Your task to perform on an android device: turn on wifi Image 0: 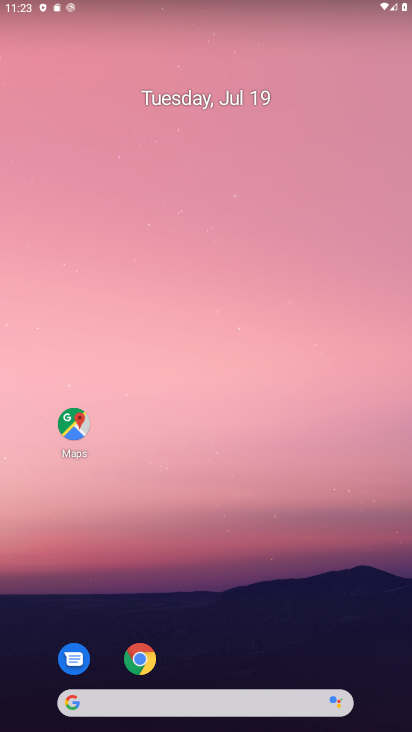
Step 0: press home button
Your task to perform on an android device: turn on wifi Image 1: 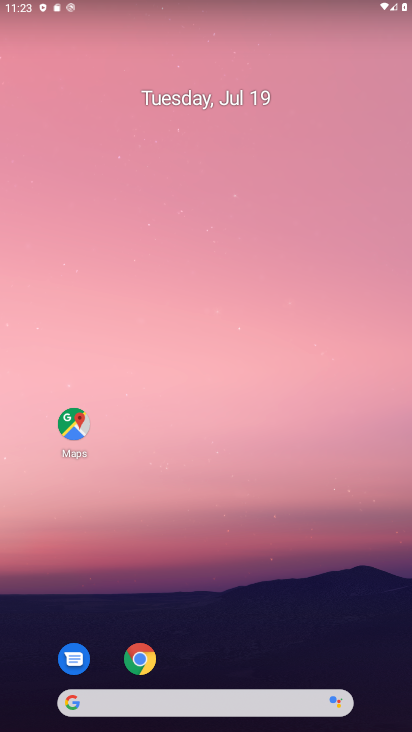
Step 1: task complete